Your task to perform on an android device: Open Android settings Image 0: 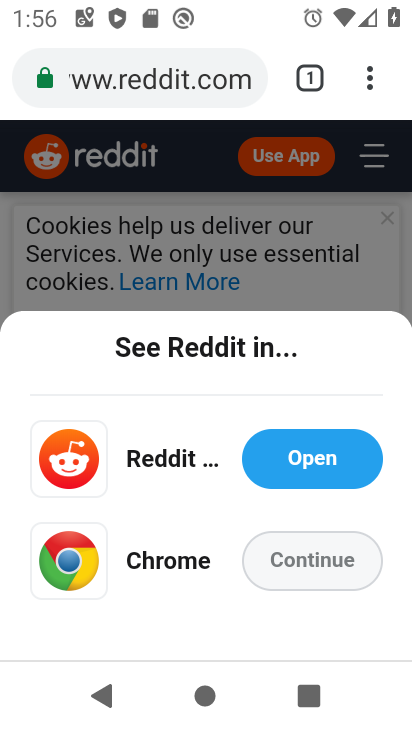
Step 0: press back button
Your task to perform on an android device: Open Android settings Image 1: 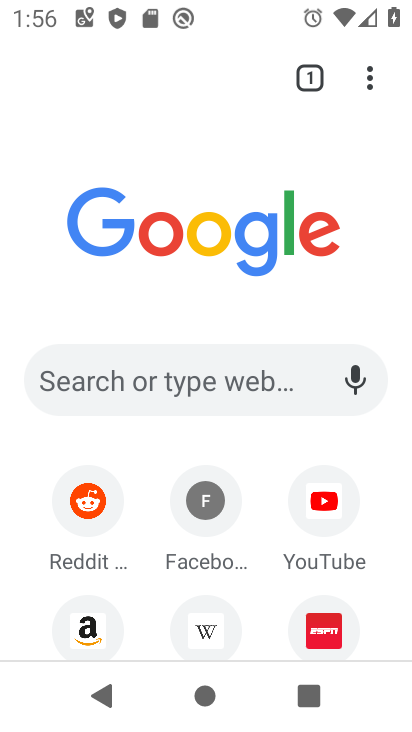
Step 1: press back button
Your task to perform on an android device: Open Android settings Image 2: 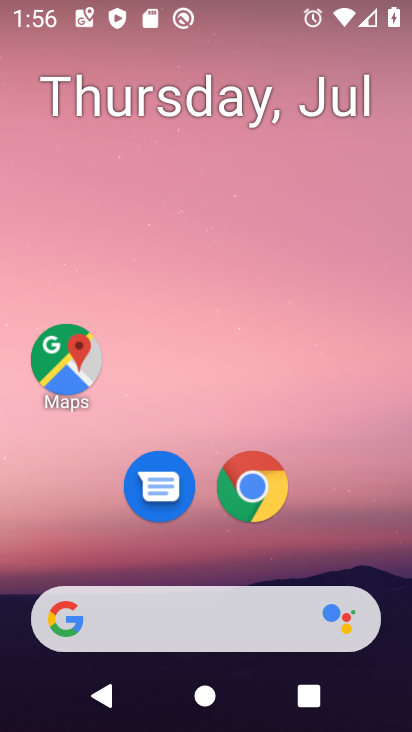
Step 2: drag from (158, 538) to (292, 27)
Your task to perform on an android device: Open Android settings Image 3: 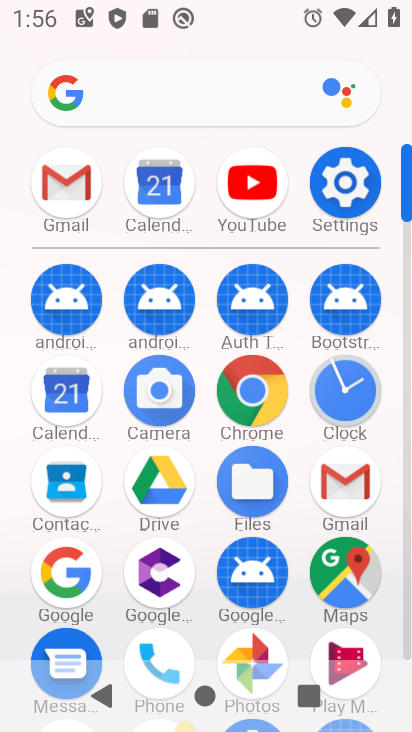
Step 3: click (352, 180)
Your task to perform on an android device: Open Android settings Image 4: 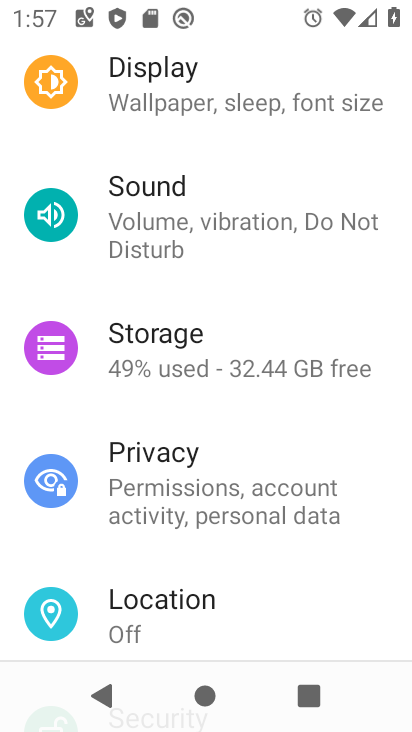
Step 4: drag from (204, 615) to (321, 1)
Your task to perform on an android device: Open Android settings Image 5: 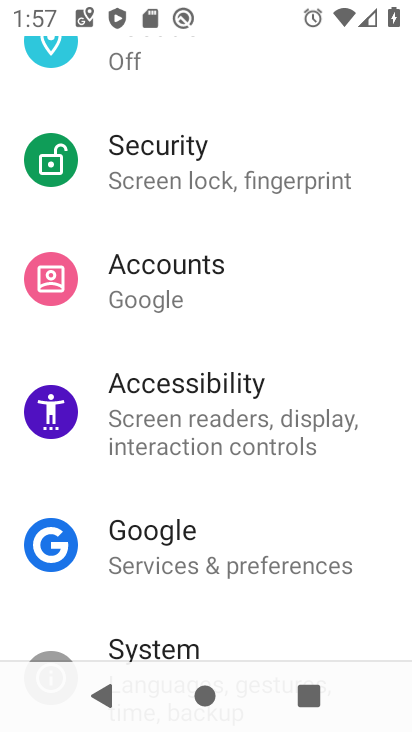
Step 5: drag from (168, 596) to (276, 8)
Your task to perform on an android device: Open Android settings Image 6: 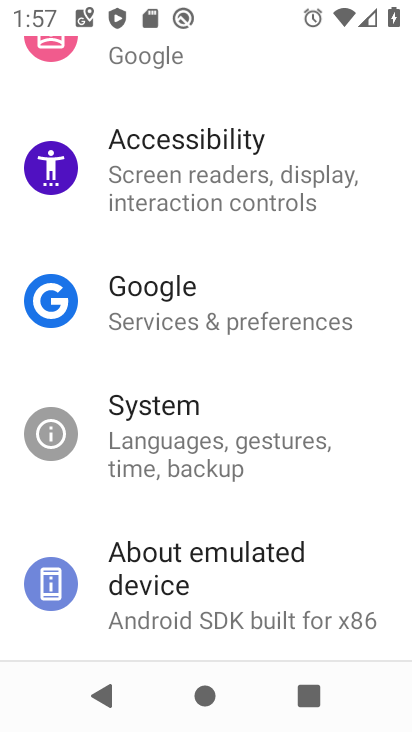
Step 6: drag from (223, 602) to (303, 43)
Your task to perform on an android device: Open Android settings Image 7: 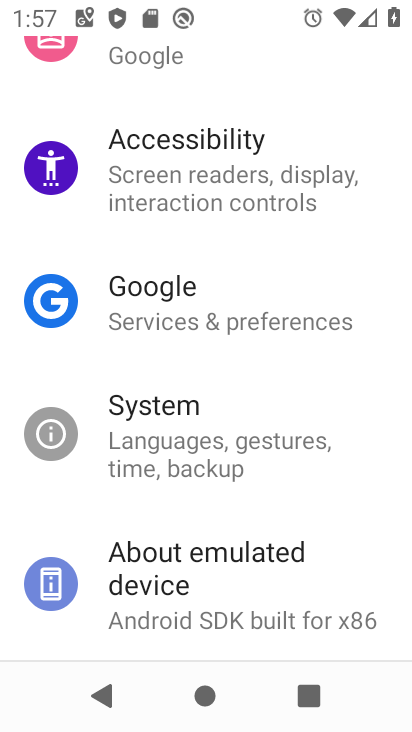
Step 7: drag from (202, 569) to (326, 24)
Your task to perform on an android device: Open Android settings Image 8: 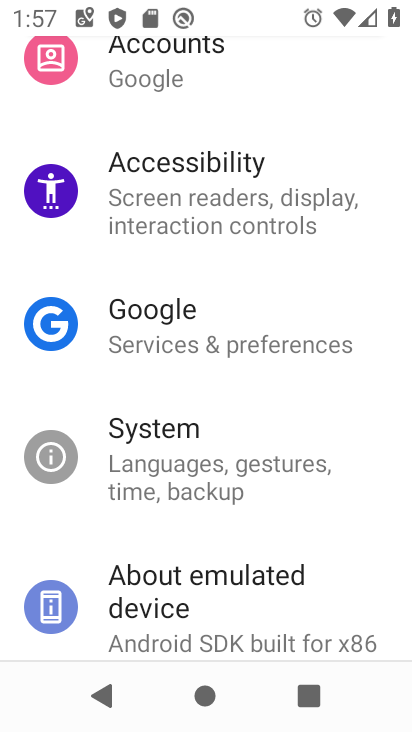
Step 8: click (163, 580)
Your task to perform on an android device: Open Android settings Image 9: 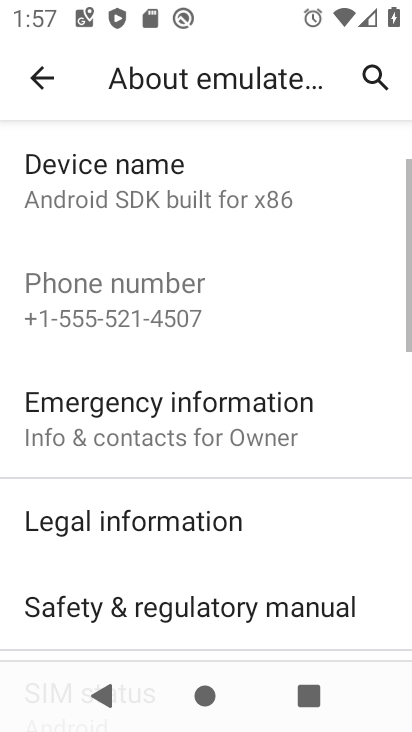
Step 9: drag from (180, 553) to (277, 25)
Your task to perform on an android device: Open Android settings Image 10: 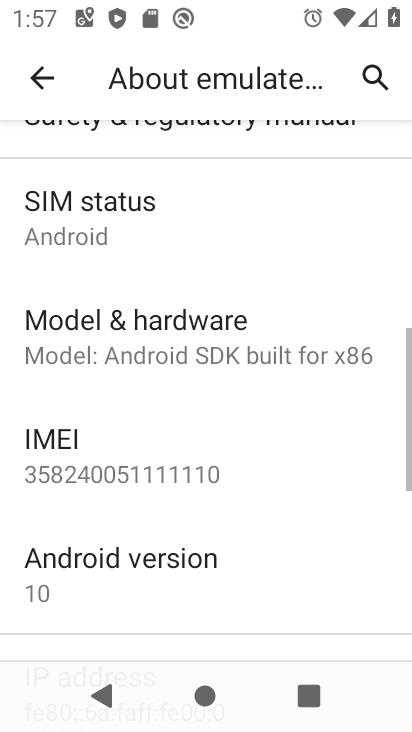
Step 10: click (164, 561)
Your task to perform on an android device: Open Android settings Image 11: 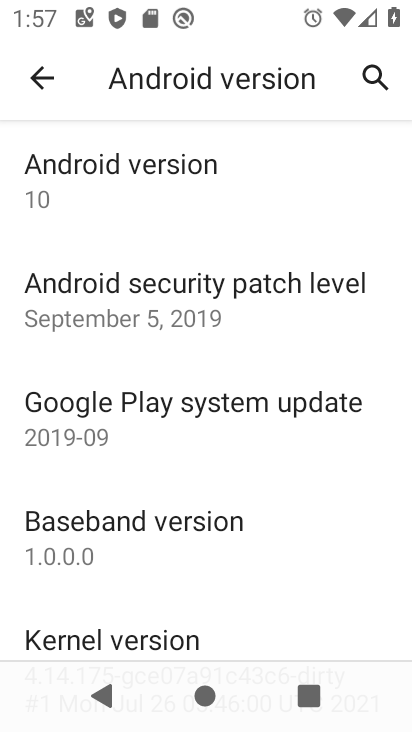
Step 11: task complete